Your task to perform on an android device: What's the weather going to be this weekend? Image 0: 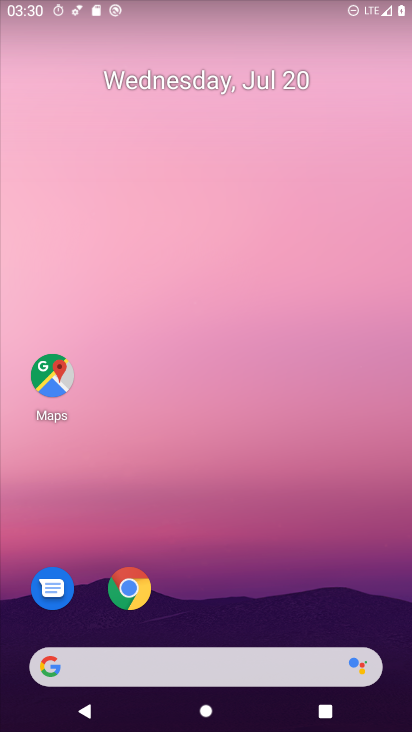
Step 0: click (188, 661)
Your task to perform on an android device: What's the weather going to be this weekend? Image 1: 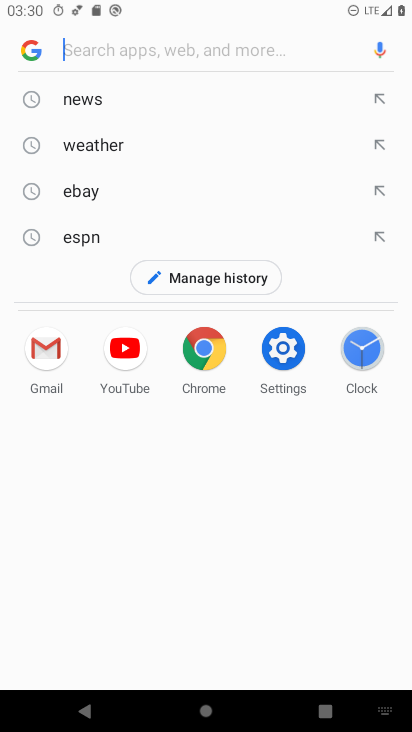
Step 1: click (91, 151)
Your task to perform on an android device: What's the weather going to be this weekend? Image 2: 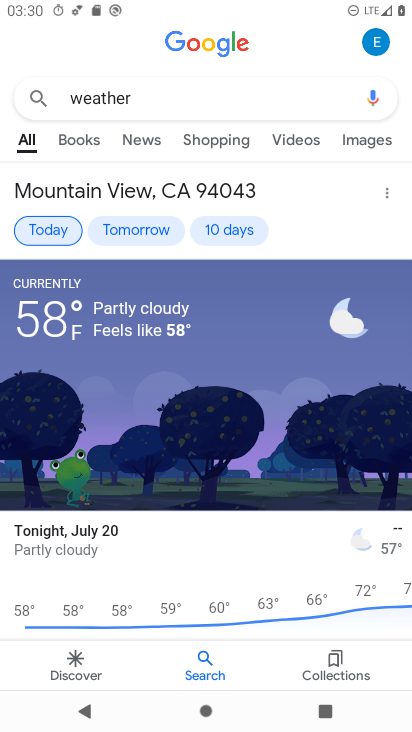
Step 2: task complete